Your task to perform on an android device: empty trash in the gmail app Image 0: 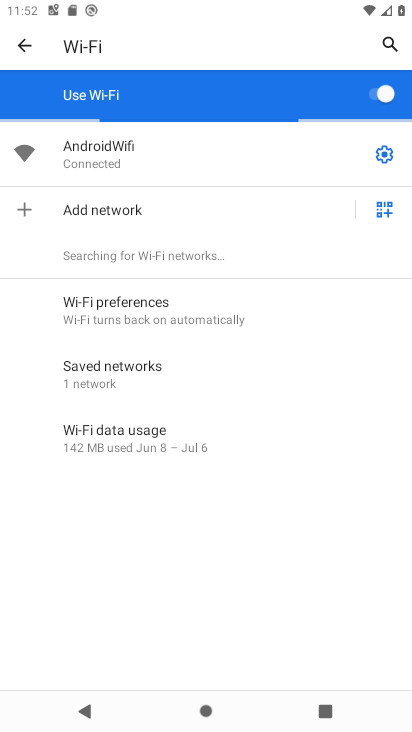
Step 0: press home button
Your task to perform on an android device: empty trash in the gmail app Image 1: 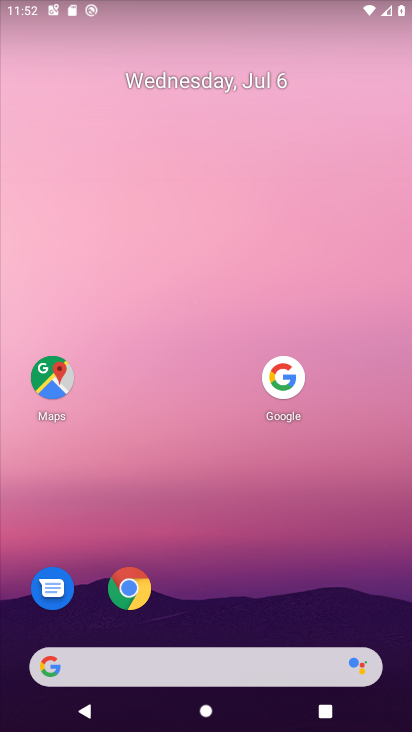
Step 1: drag from (154, 671) to (289, 24)
Your task to perform on an android device: empty trash in the gmail app Image 2: 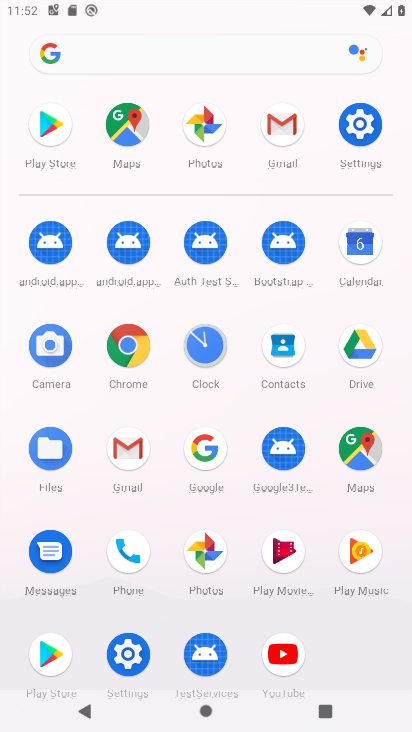
Step 2: click (278, 133)
Your task to perform on an android device: empty trash in the gmail app Image 3: 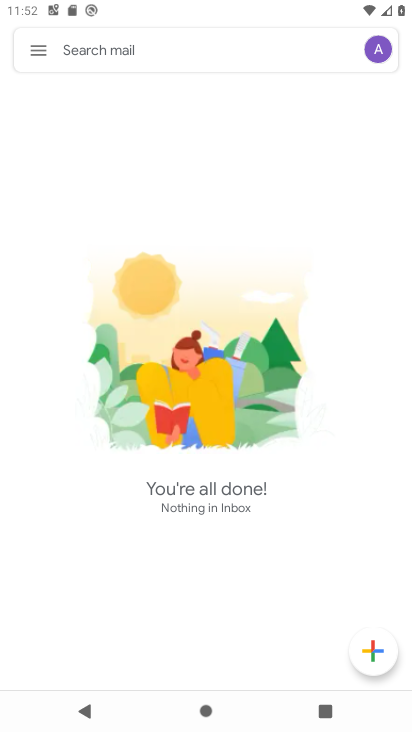
Step 3: click (36, 51)
Your task to perform on an android device: empty trash in the gmail app Image 4: 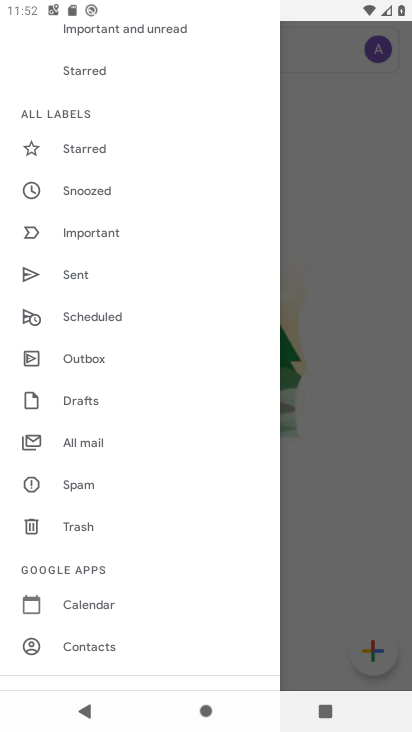
Step 4: click (70, 530)
Your task to perform on an android device: empty trash in the gmail app Image 5: 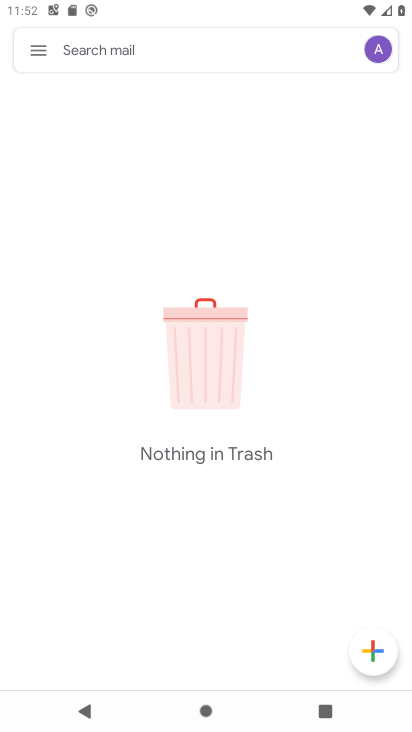
Step 5: task complete